Your task to perform on an android device: Open display settings Image 0: 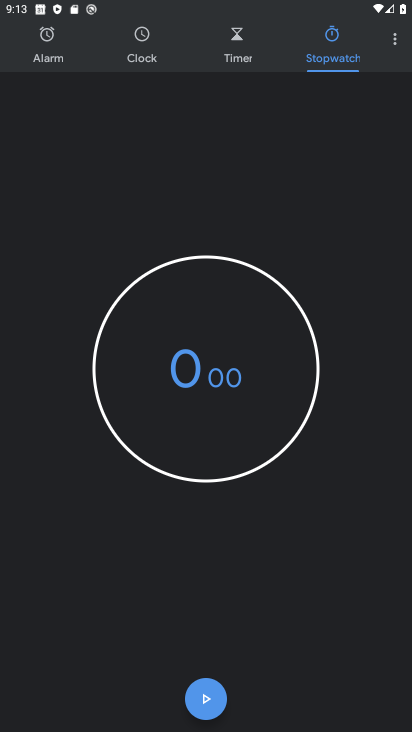
Step 0: press back button
Your task to perform on an android device: Open display settings Image 1: 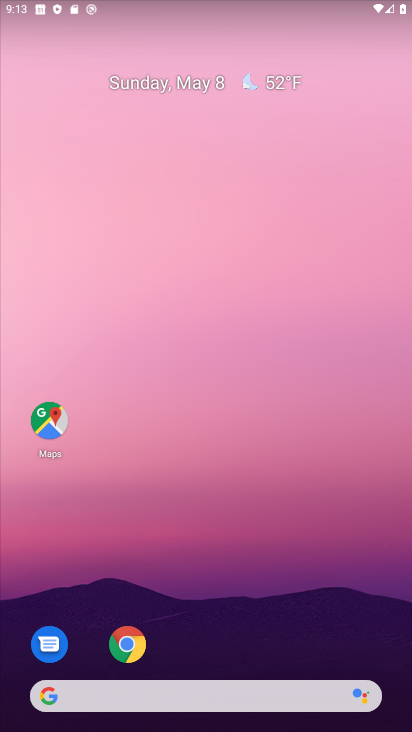
Step 1: drag from (228, 587) to (283, 219)
Your task to perform on an android device: Open display settings Image 2: 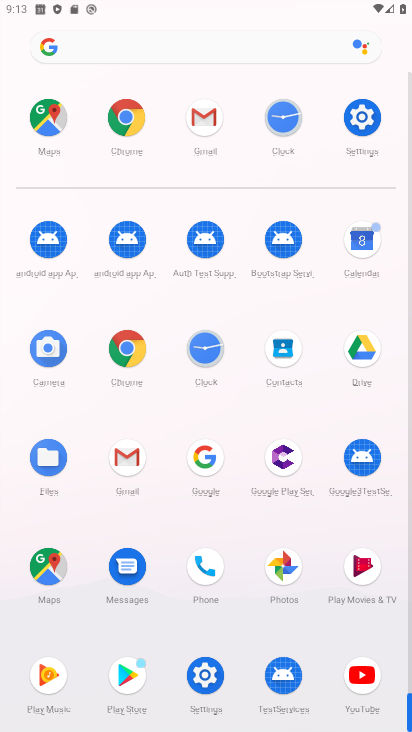
Step 2: click (364, 135)
Your task to perform on an android device: Open display settings Image 3: 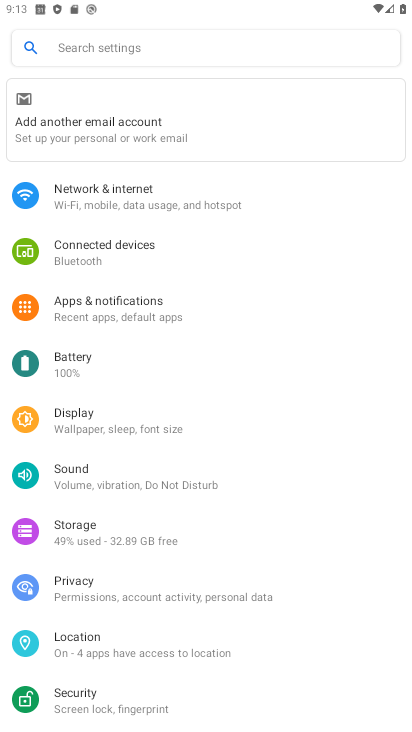
Step 3: click (120, 424)
Your task to perform on an android device: Open display settings Image 4: 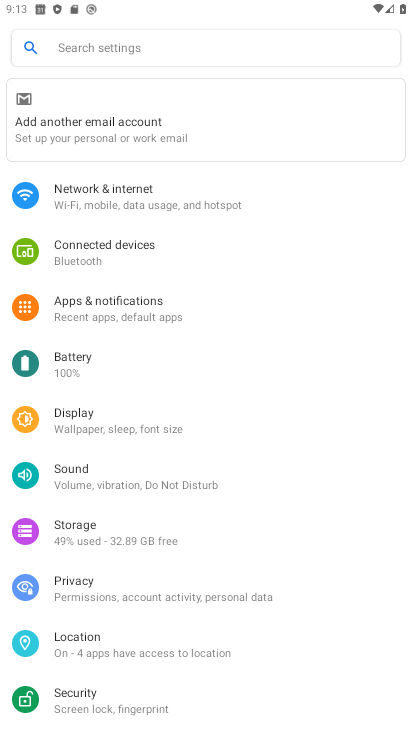
Step 4: click (120, 424)
Your task to perform on an android device: Open display settings Image 5: 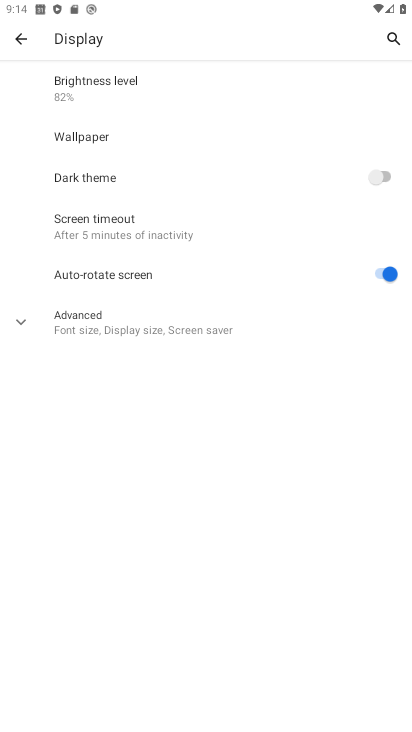
Step 5: task complete